Your task to perform on an android device: empty trash in the gmail app Image 0: 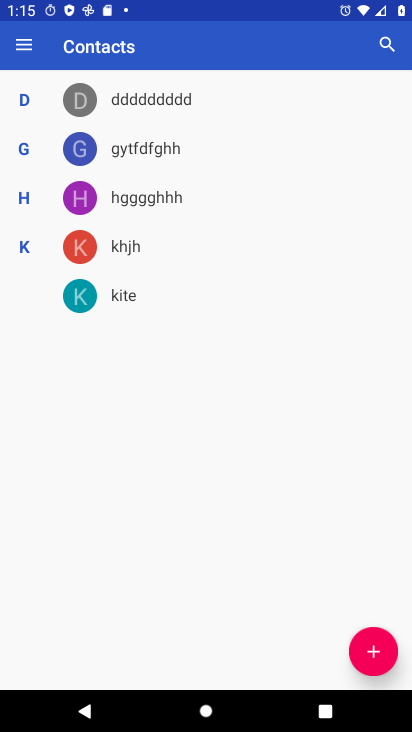
Step 0: press home button
Your task to perform on an android device: empty trash in the gmail app Image 1: 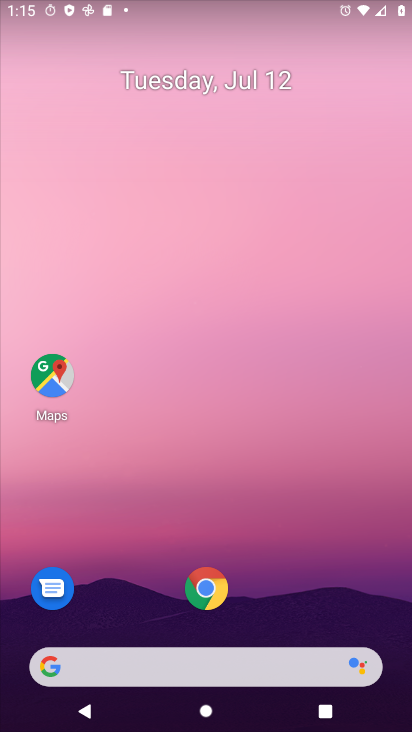
Step 1: drag from (144, 662) to (299, 50)
Your task to perform on an android device: empty trash in the gmail app Image 2: 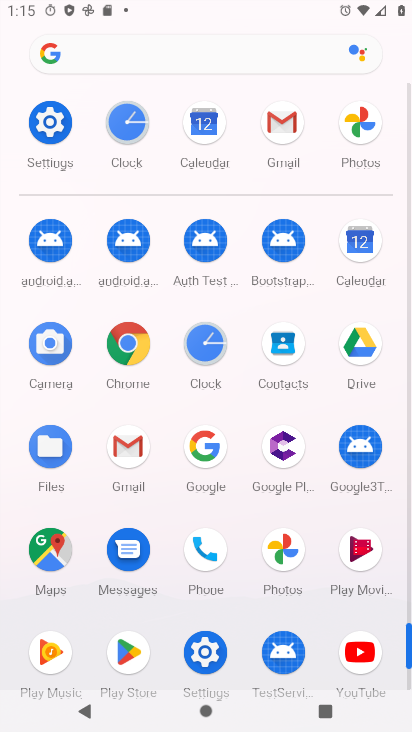
Step 2: click (288, 129)
Your task to perform on an android device: empty trash in the gmail app Image 3: 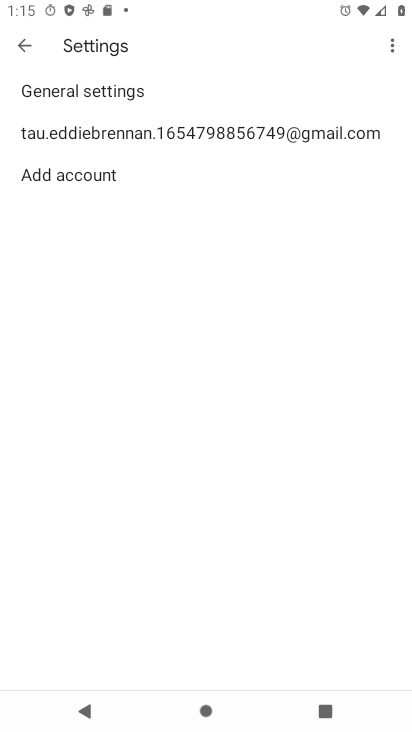
Step 3: click (26, 46)
Your task to perform on an android device: empty trash in the gmail app Image 4: 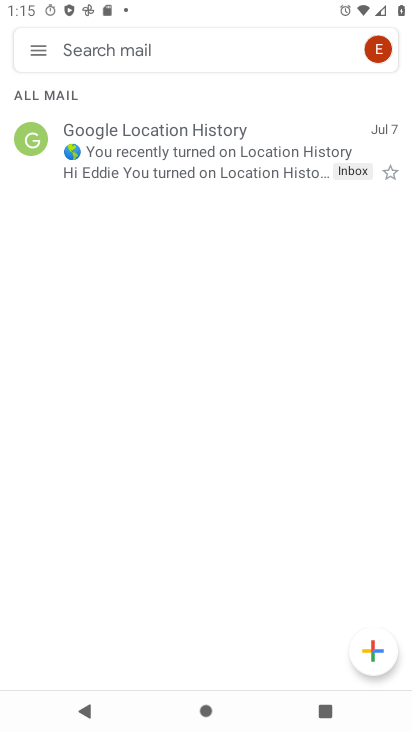
Step 4: click (35, 48)
Your task to perform on an android device: empty trash in the gmail app Image 5: 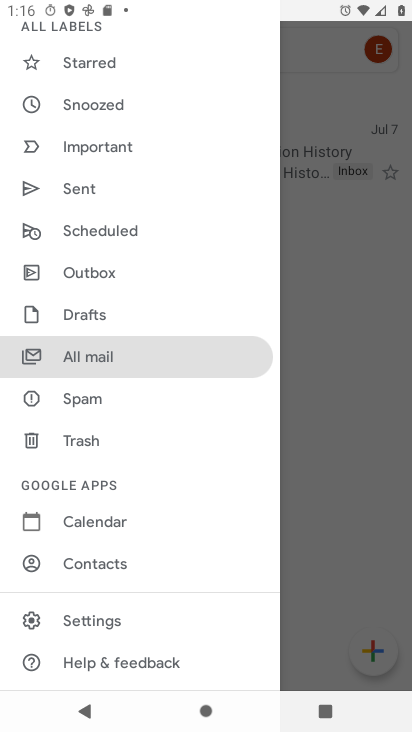
Step 5: click (86, 437)
Your task to perform on an android device: empty trash in the gmail app Image 6: 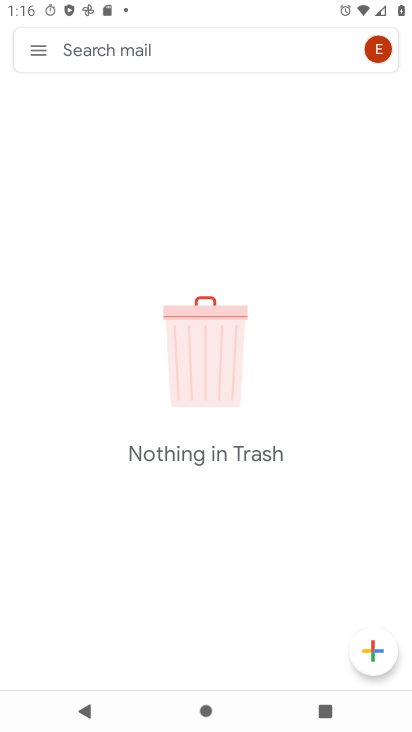
Step 6: task complete